Your task to perform on an android device: Open Google Maps and go to "Timeline" Image 0: 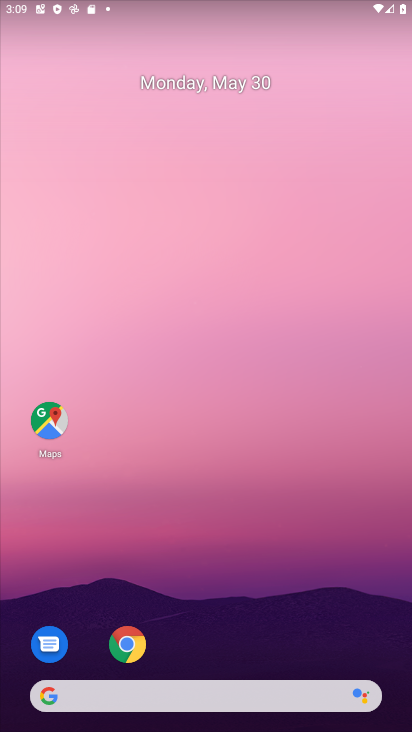
Step 0: click (60, 435)
Your task to perform on an android device: Open Google Maps and go to "Timeline" Image 1: 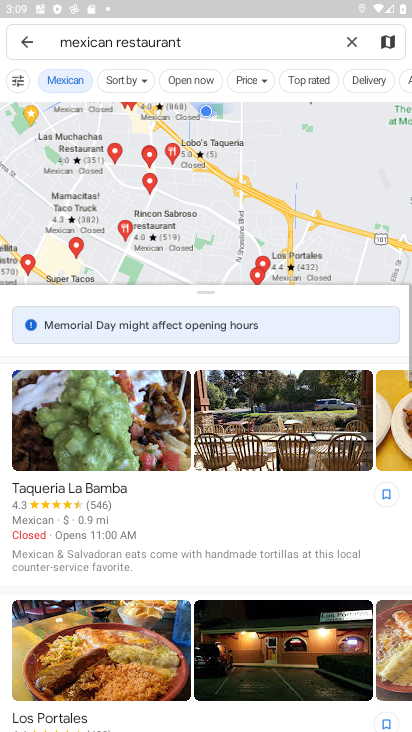
Step 1: click (33, 41)
Your task to perform on an android device: Open Google Maps and go to "Timeline" Image 2: 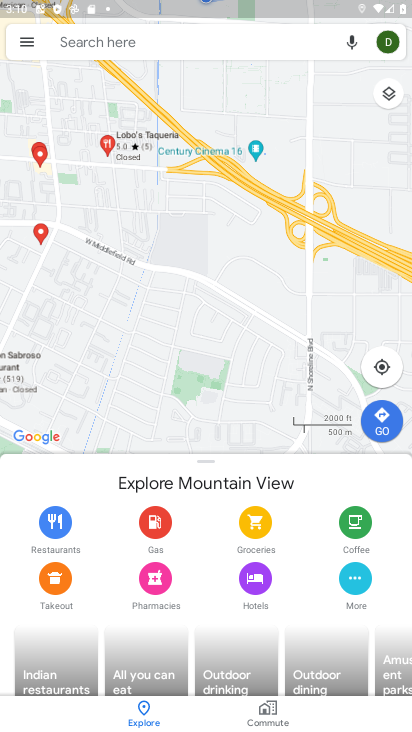
Step 2: click (33, 41)
Your task to perform on an android device: Open Google Maps and go to "Timeline" Image 3: 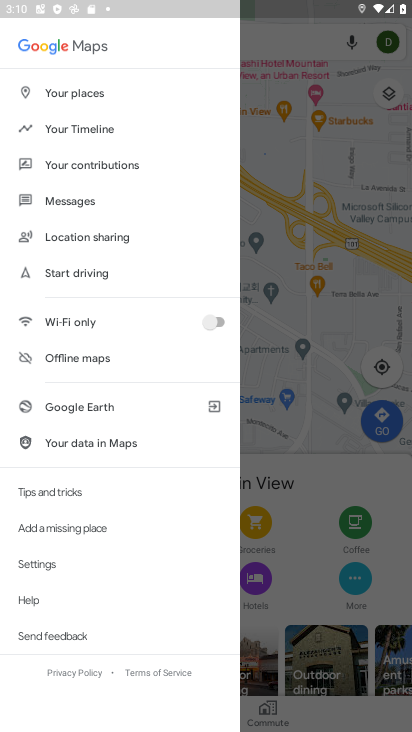
Step 3: click (125, 134)
Your task to perform on an android device: Open Google Maps and go to "Timeline" Image 4: 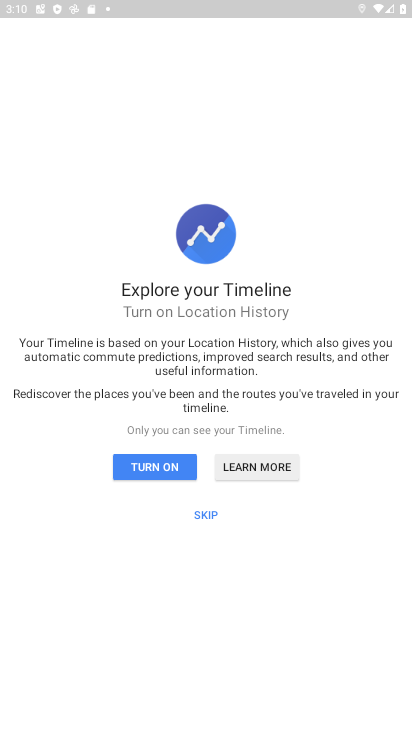
Step 4: click (209, 520)
Your task to perform on an android device: Open Google Maps and go to "Timeline" Image 5: 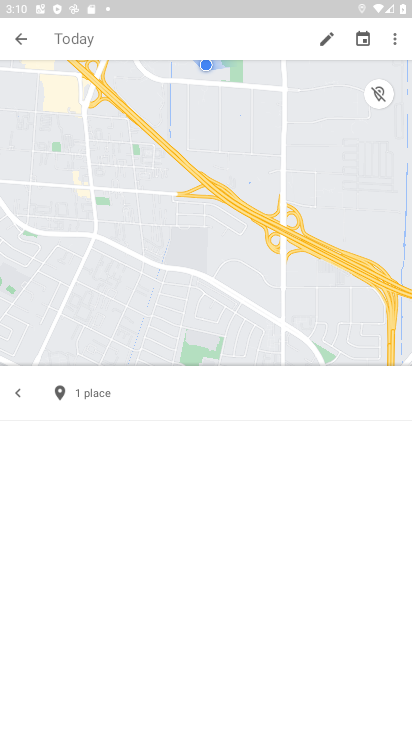
Step 5: task complete